Your task to perform on an android device: Check the news Image 0: 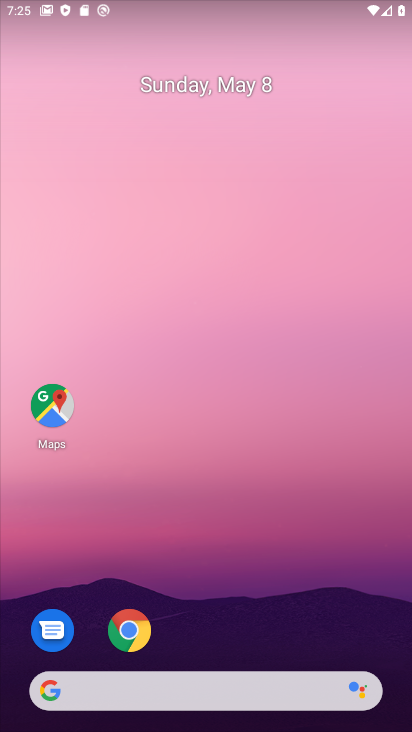
Step 0: drag from (235, 573) to (161, 101)
Your task to perform on an android device: Check the news Image 1: 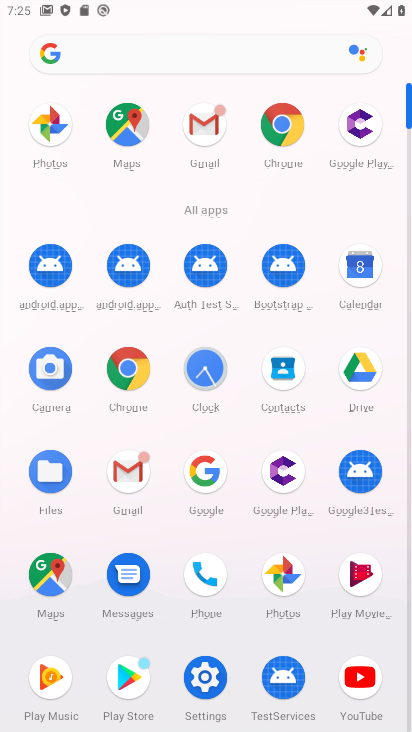
Step 1: click (254, 43)
Your task to perform on an android device: Check the news Image 2: 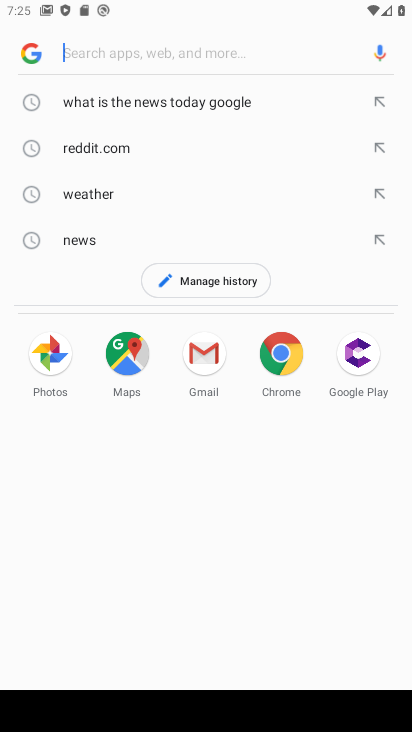
Step 2: click (72, 250)
Your task to perform on an android device: Check the news Image 3: 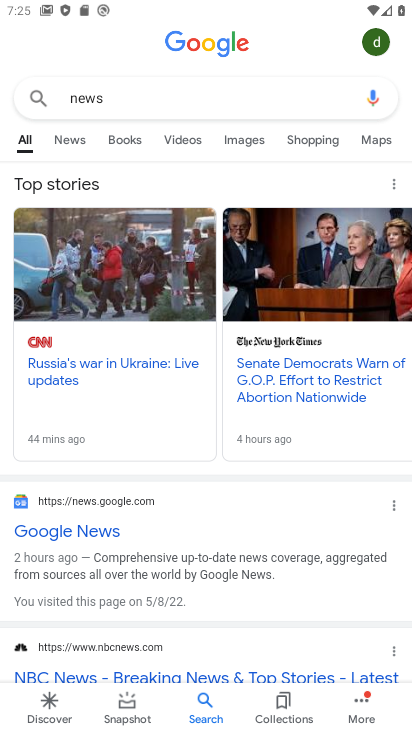
Step 3: task complete